Your task to perform on an android device: Go to Maps Image 0: 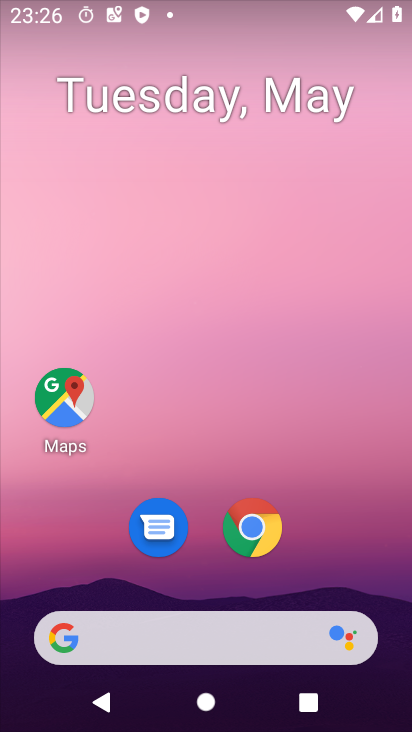
Step 0: drag from (194, 564) to (276, 212)
Your task to perform on an android device: Go to Maps Image 1: 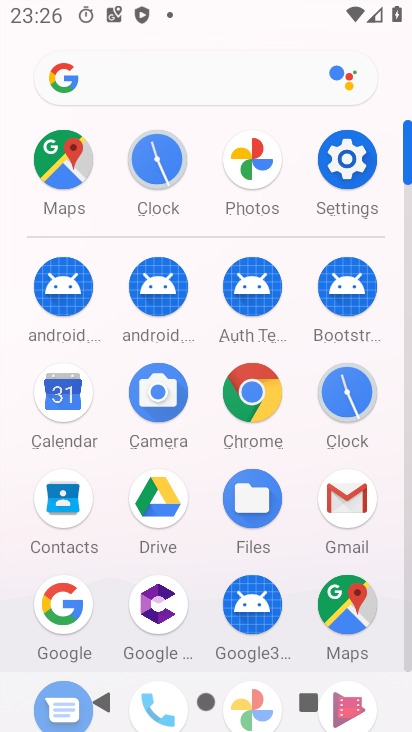
Step 1: click (359, 591)
Your task to perform on an android device: Go to Maps Image 2: 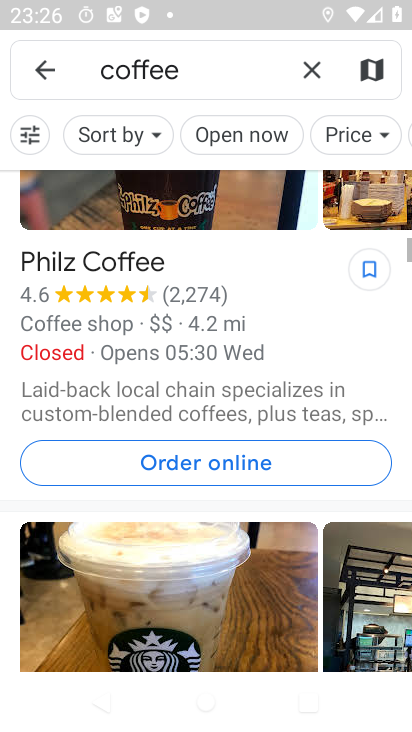
Step 2: click (36, 64)
Your task to perform on an android device: Go to Maps Image 3: 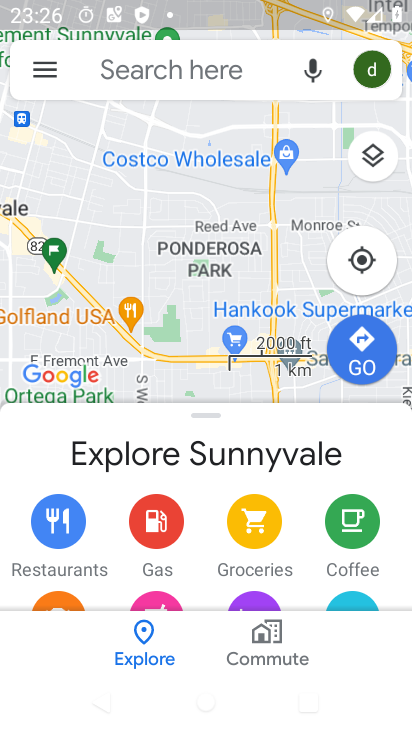
Step 3: task complete